Your task to perform on an android device: delete a single message in the gmail app Image 0: 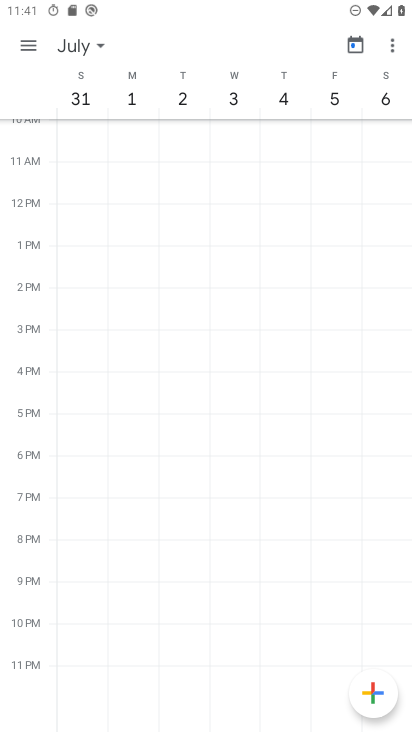
Step 0: press home button
Your task to perform on an android device: delete a single message in the gmail app Image 1: 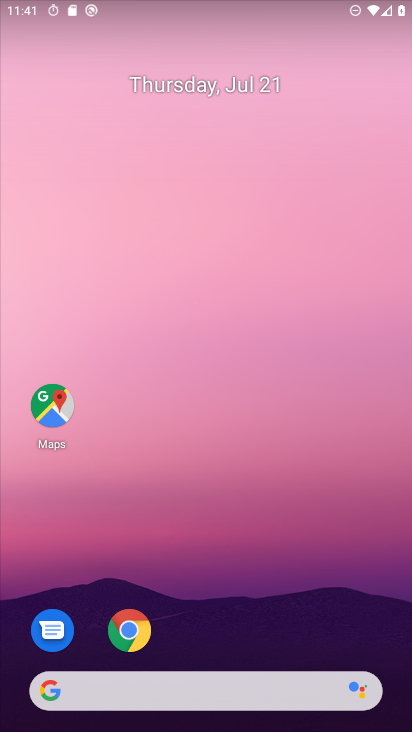
Step 1: drag from (270, 543) to (241, 104)
Your task to perform on an android device: delete a single message in the gmail app Image 2: 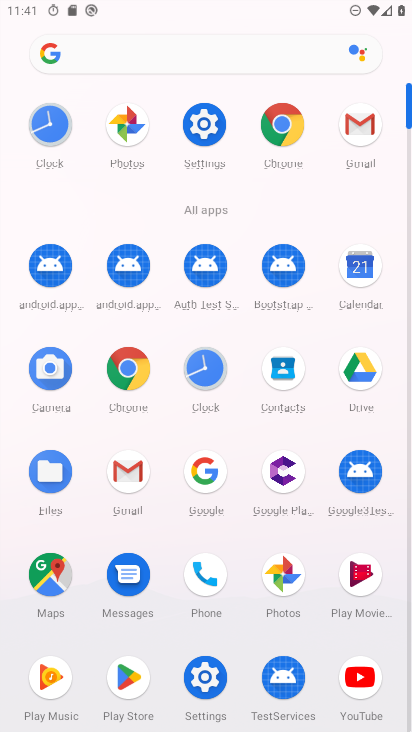
Step 2: click (351, 124)
Your task to perform on an android device: delete a single message in the gmail app Image 3: 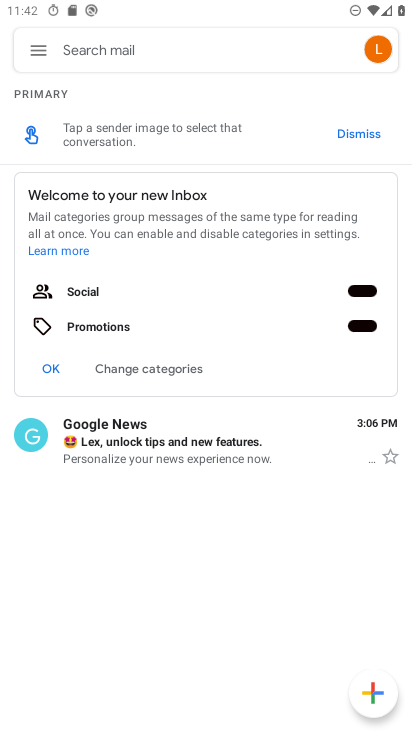
Step 3: click (188, 432)
Your task to perform on an android device: delete a single message in the gmail app Image 4: 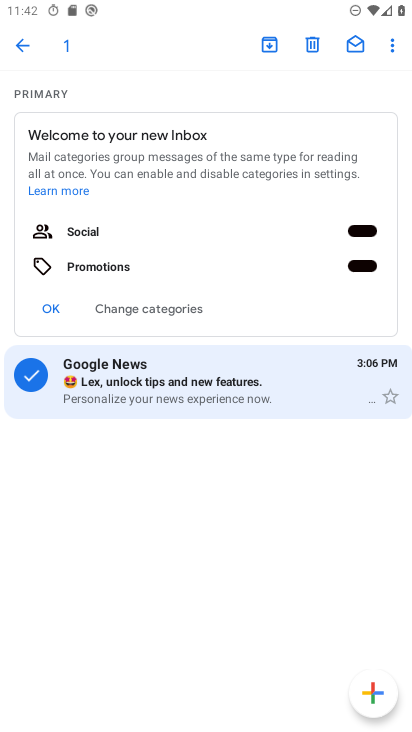
Step 4: click (391, 46)
Your task to perform on an android device: delete a single message in the gmail app Image 5: 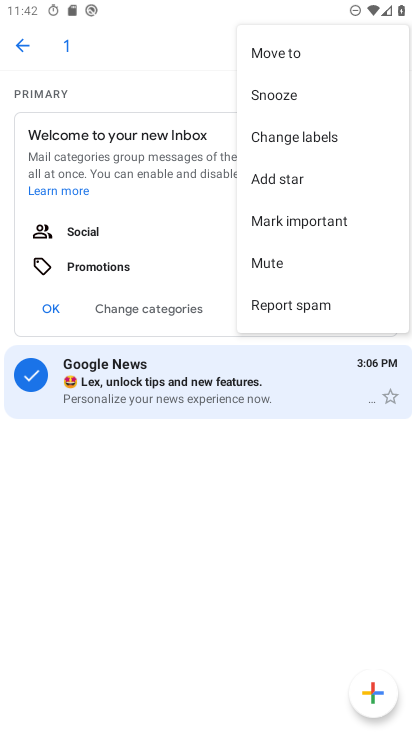
Step 5: click (289, 378)
Your task to perform on an android device: delete a single message in the gmail app Image 6: 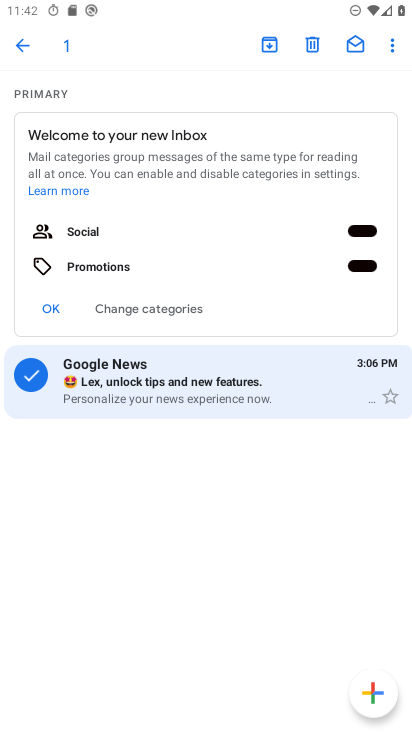
Step 6: click (310, 48)
Your task to perform on an android device: delete a single message in the gmail app Image 7: 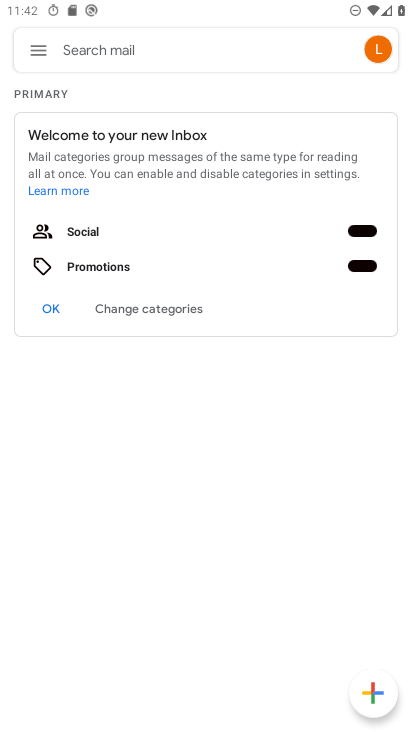
Step 7: task complete